Your task to perform on an android device: install app "Speedtest by Ookla" Image 0: 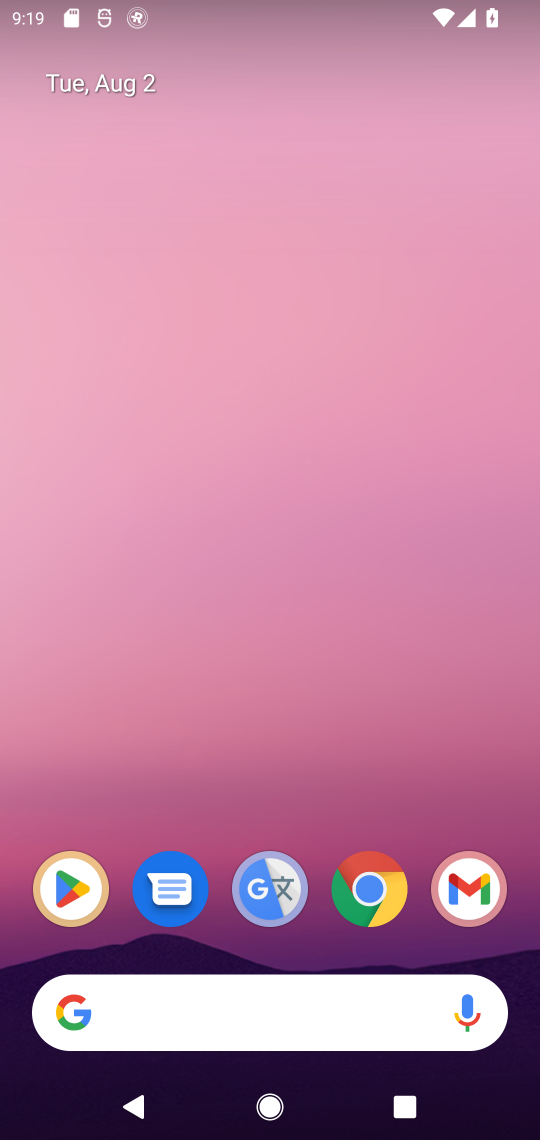
Step 0: press home button
Your task to perform on an android device: install app "Speedtest by Ookla" Image 1: 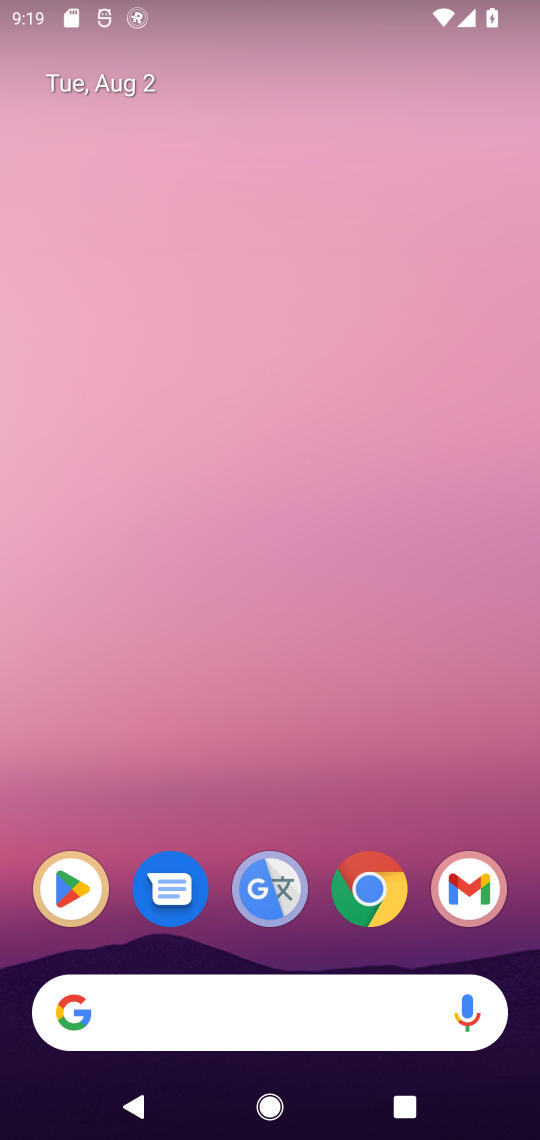
Step 1: click (61, 874)
Your task to perform on an android device: install app "Speedtest by Ookla" Image 2: 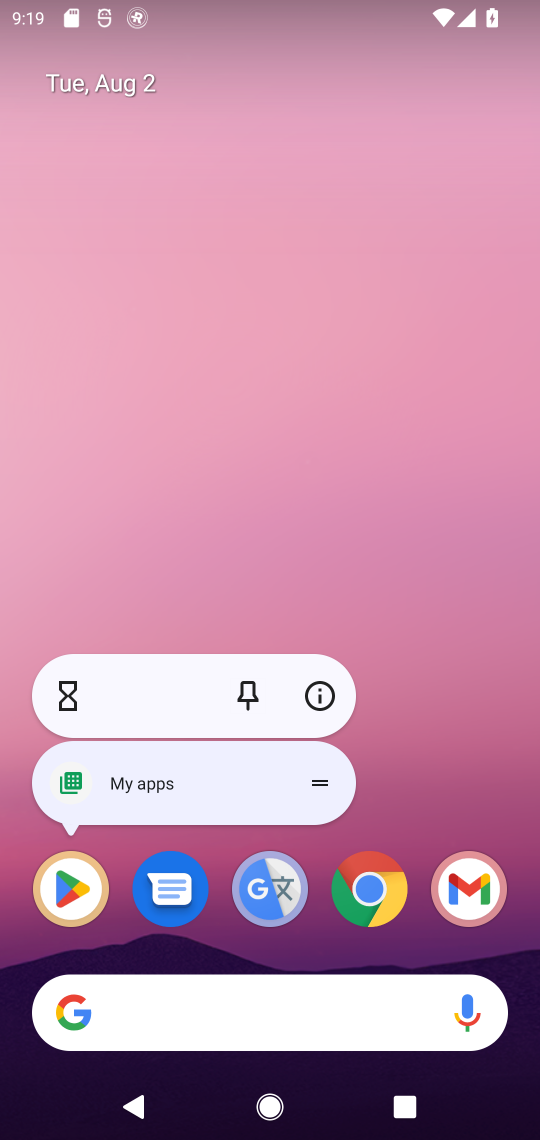
Step 2: click (71, 877)
Your task to perform on an android device: install app "Speedtest by Ookla" Image 3: 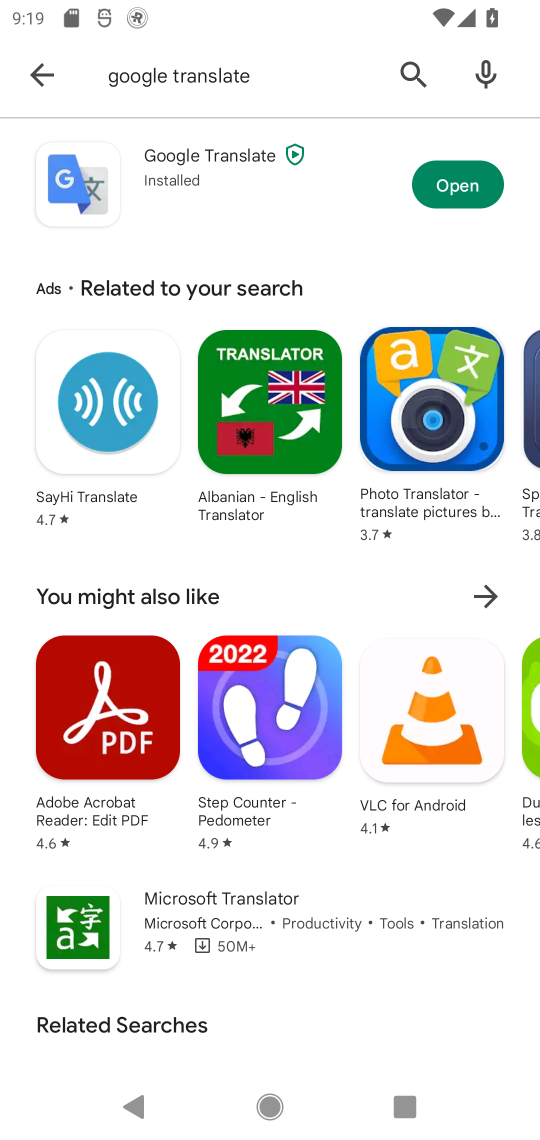
Step 3: click (408, 80)
Your task to perform on an android device: install app "Speedtest by Ookla" Image 4: 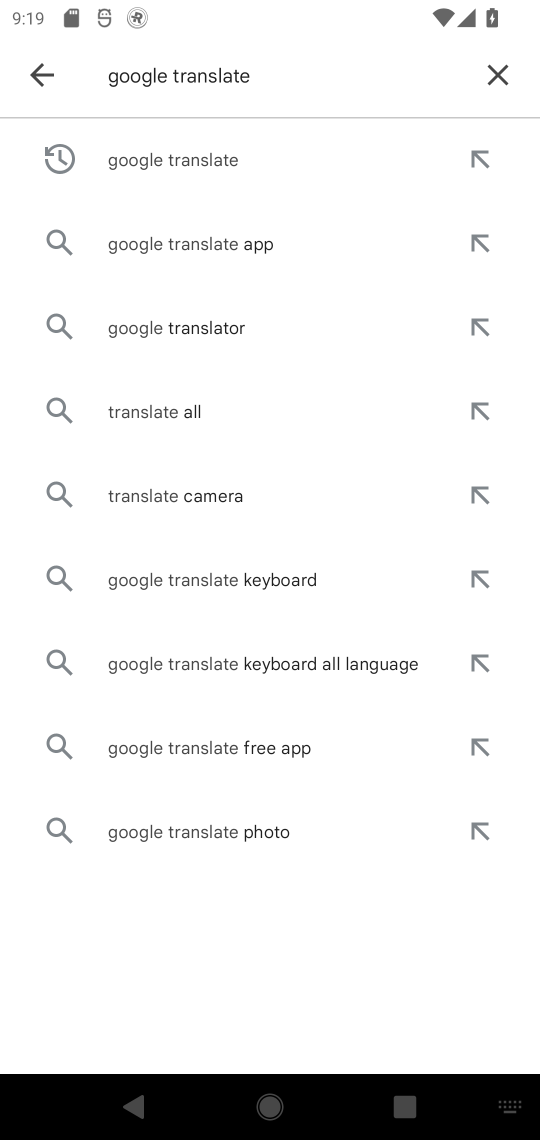
Step 4: click (491, 75)
Your task to perform on an android device: install app "Speedtest by Ookla" Image 5: 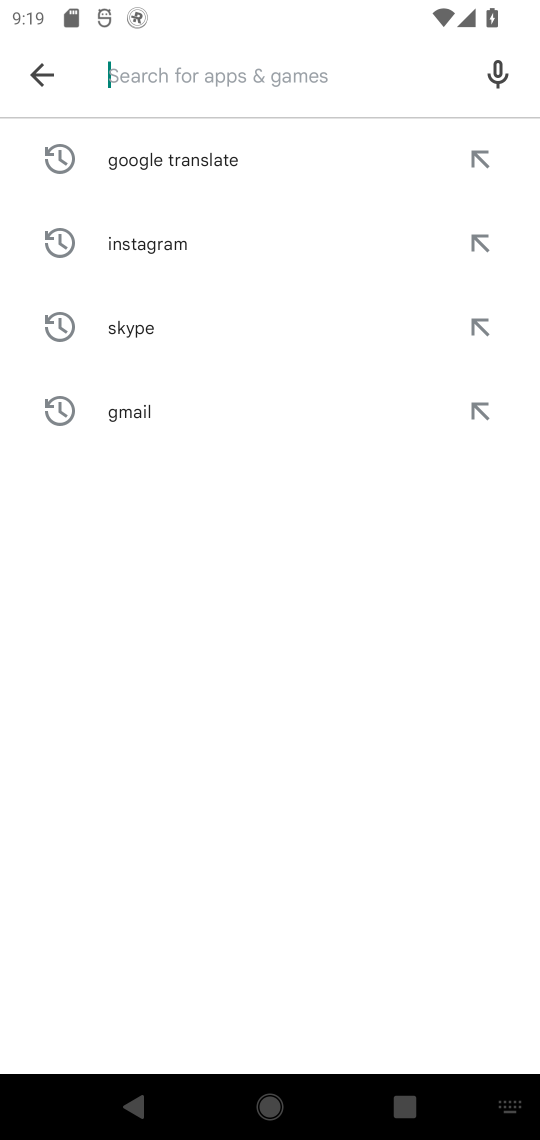
Step 5: type "Speedtest by Ookla"
Your task to perform on an android device: install app "Speedtest by Ookla" Image 6: 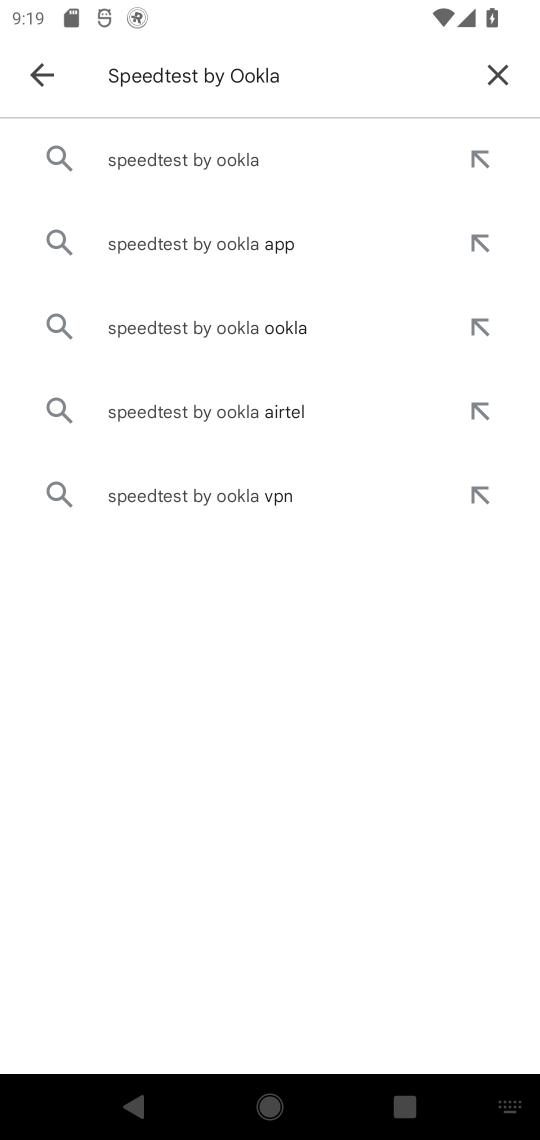
Step 6: click (210, 157)
Your task to perform on an android device: install app "Speedtest by Ookla" Image 7: 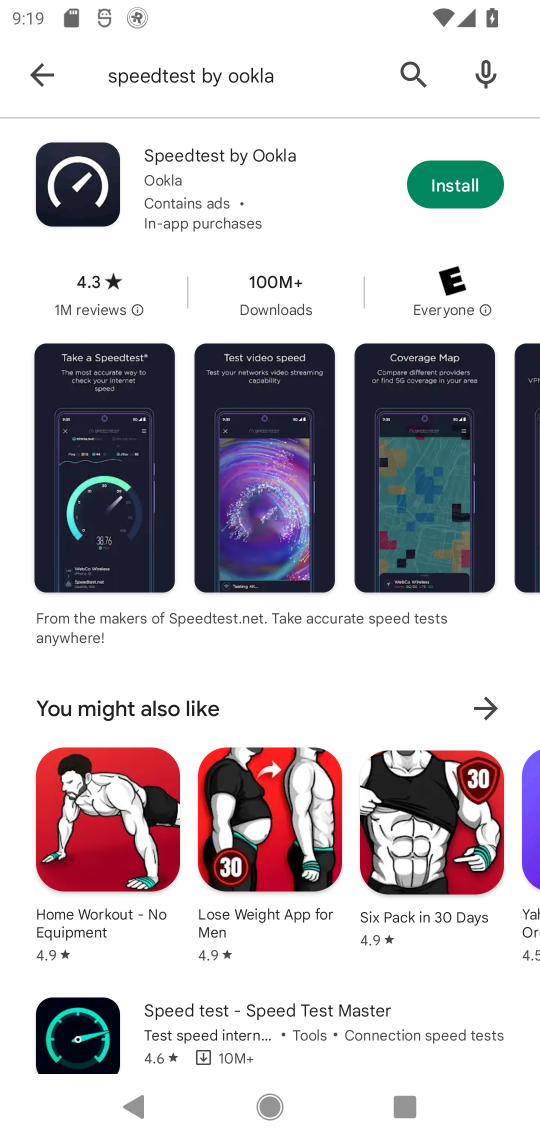
Step 7: click (450, 182)
Your task to perform on an android device: install app "Speedtest by Ookla" Image 8: 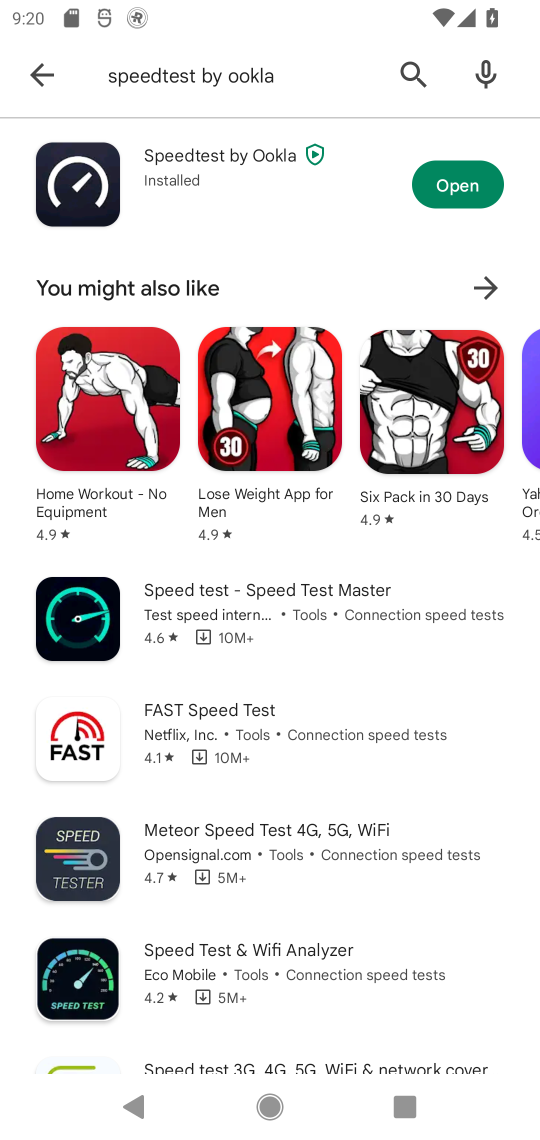
Step 8: task complete